Your task to perform on an android device: open sync settings in chrome Image 0: 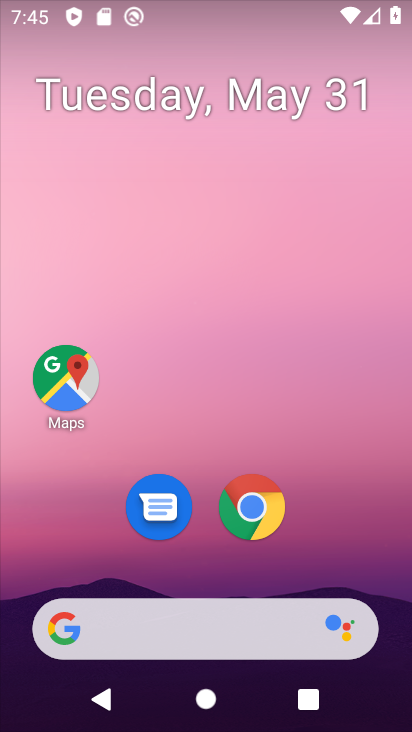
Step 0: click (254, 515)
Your task to perform on an android device: open sync settings in chrome Image 1: 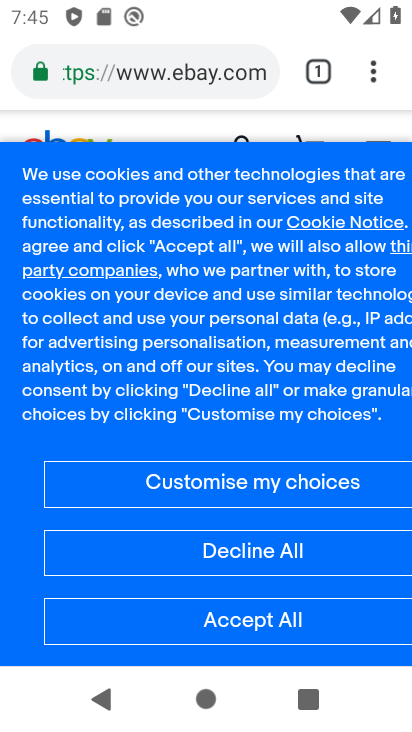
Step 1: click (373, 74)
Your task to perform on an android device: open sync settings in chrome Image 2: 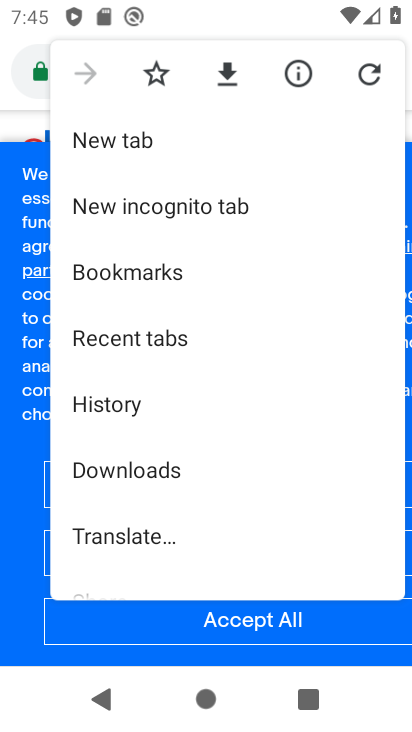
Step 2: drag from (256, 449) to (266, 210)
Your task to perform on an android device: open sync settings in chrome Image 3: 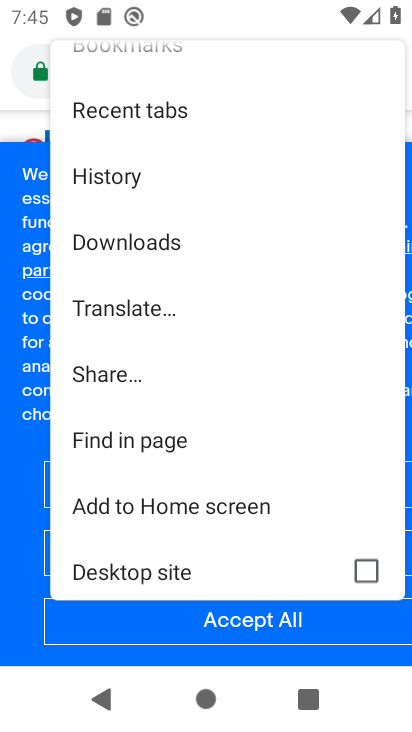
Step 3: drag from (211, 504) to (200, 155)
Your task to perform on an android device: open sync settings in chrome Image 4: 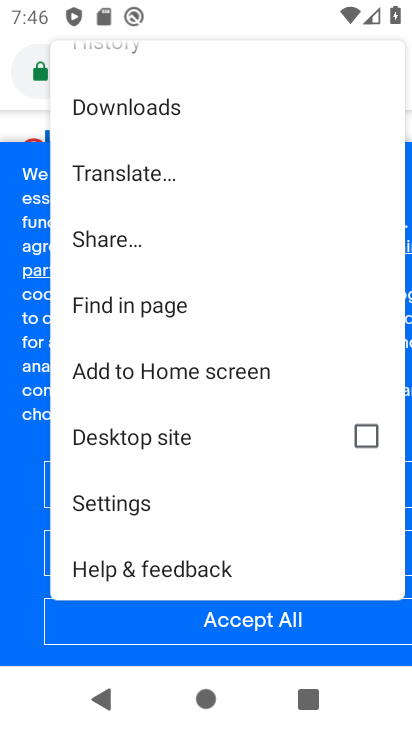
Step 4: click (104, 504)
Your task to perform on an android device: open sync settings in chrome Image 5: 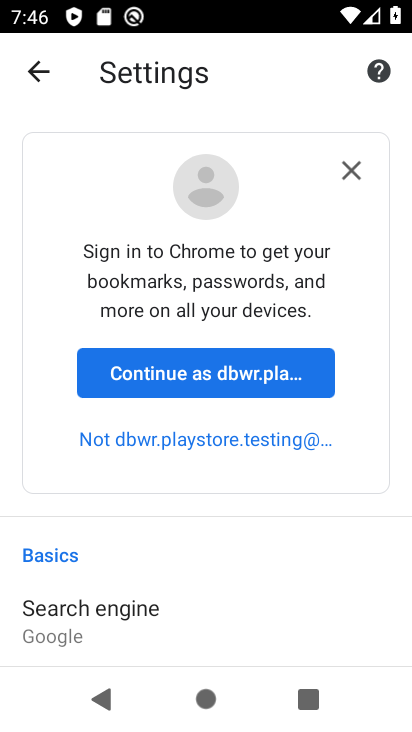
Step 5: click (227, 370)
Your task to perform on an android device: open sync settings in chrome Image 6: 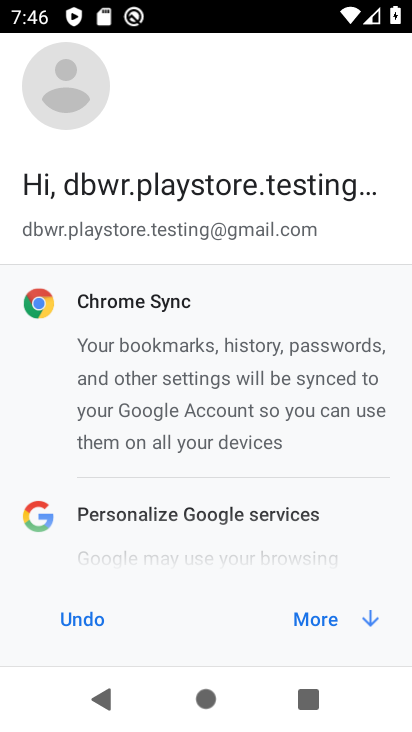
Step 6: click (324, 608)
Your task to perform on an android device: open sync settings in chrome Image 7: 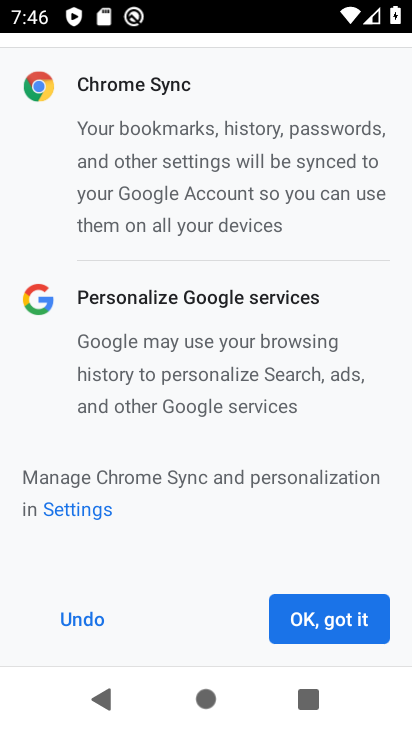
Step 7: click (323, 622)
Your task to perform on an android device: open sync settings in chrome Image 8: 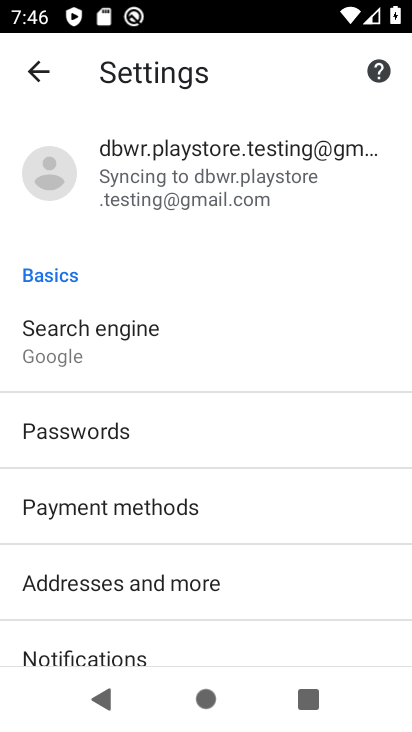
Step 8: click (186, 182)
Your task to perform on an android device: open sync settings in chrome Image 9: 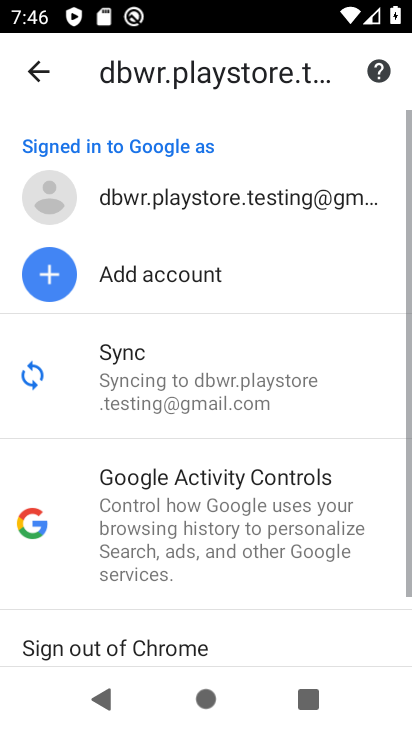
Step 9: click (119, 392)
Your task to perform on an android device: open sync settings in chrome Image 10: 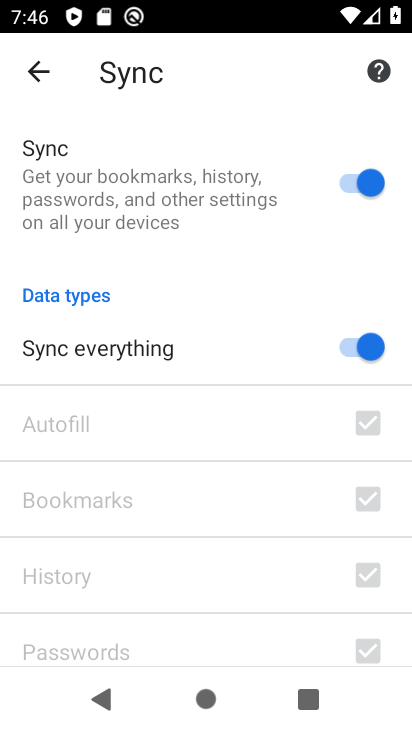
Step 10: task complete